Your task to perform on an android device: Search for the new Apple Watch on Best Buy Image 0: 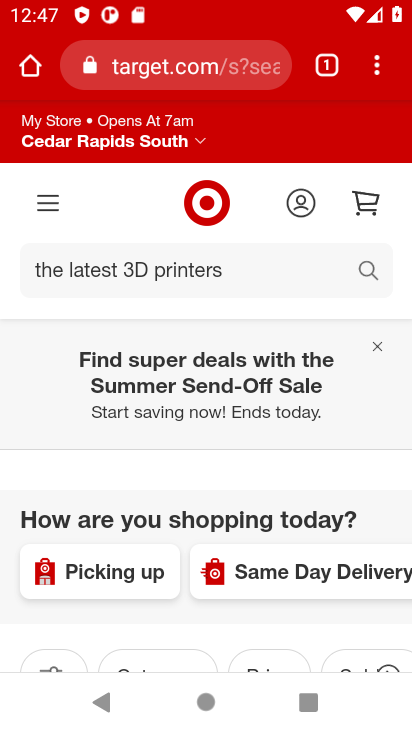
Step 0: press home button
Your task to perform on an android device: Search for the new Apple Watch on Best Buy Image 1: 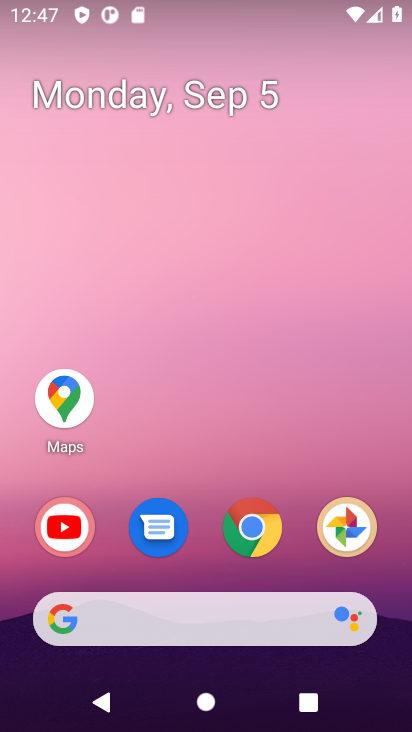
Step 1: click (244, 513)
Your task to perform on an android device: Search for the new Apple Watch on Best Buy Image 2: 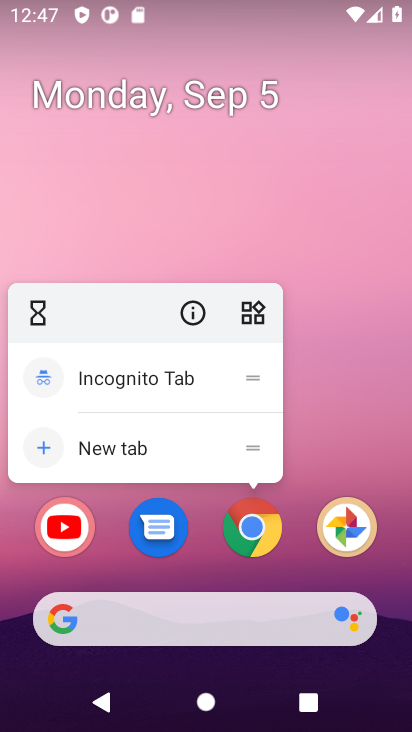
Step 2: click (248, 514)
Your task to perform on an android device: Search for the new Apple Watch on Best Buy Image 3: 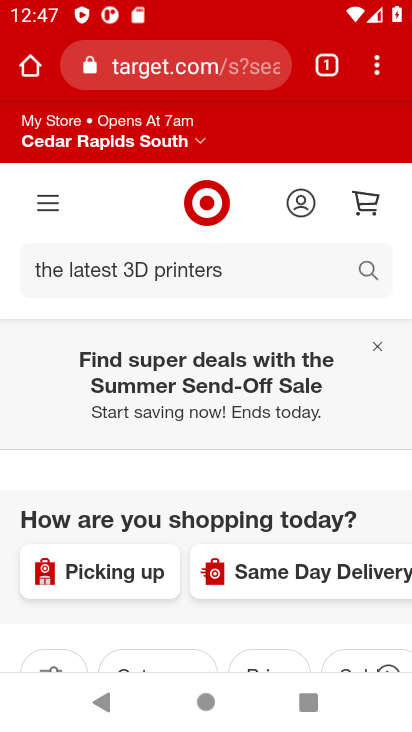
Step 3: click (161, 70)
Your task to perform on an android device: Search for the new Apple Watch on Best Buy Image 4: 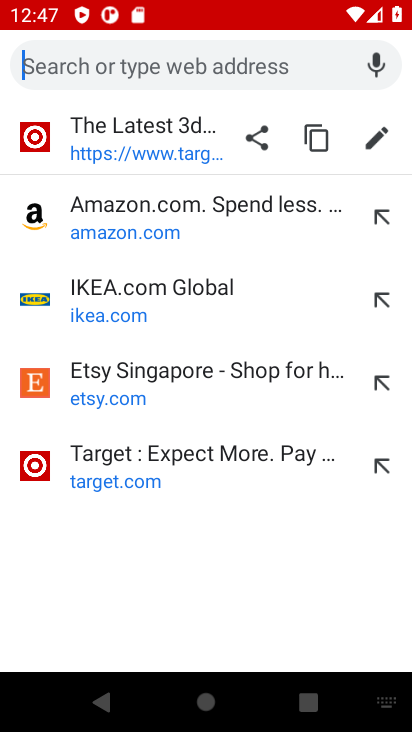
Step 4: type "Best buy"
Your task to perform on an android device: Search for the new Apple Watch on Best Buy Image 5: 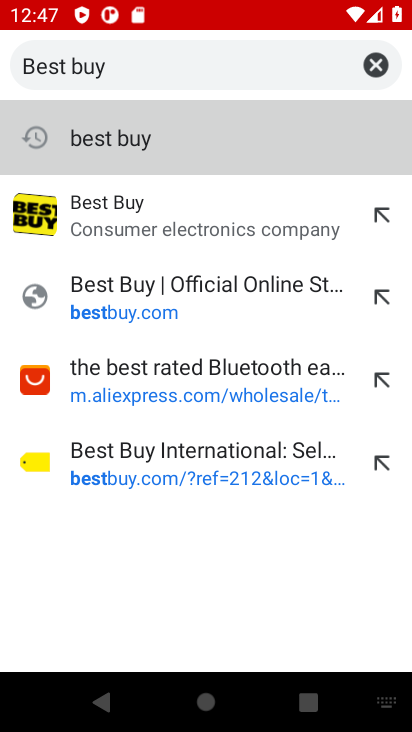
Step 5: click (148, 139)
Your task to perform on an android device: Search for the new Apple Watch on Best Buy Image 6: 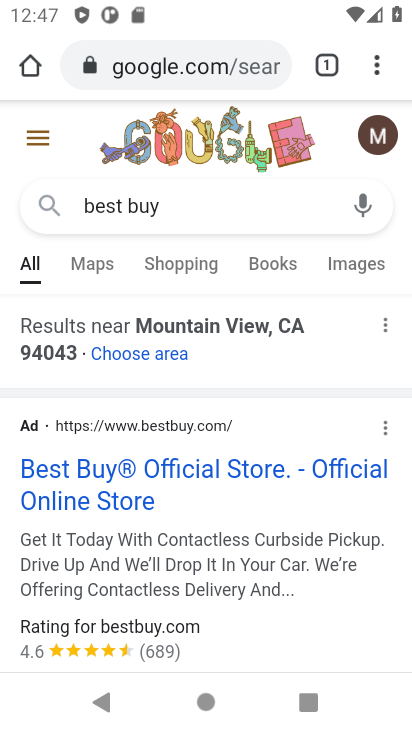
Step 6: click (149, 469)
Your task to perform on an android device: Search for the new Apple Watch on Best Buy Image 7: 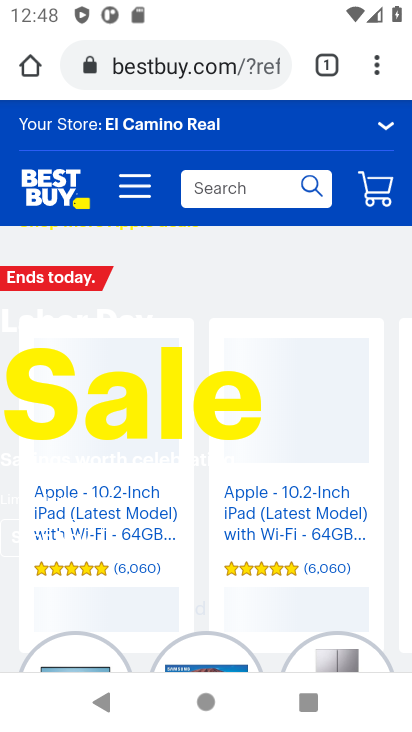
Step 7: click (207, 187)
Your task to perform on an android device: Search for the new Apple Watch on Best Buy Image 8: 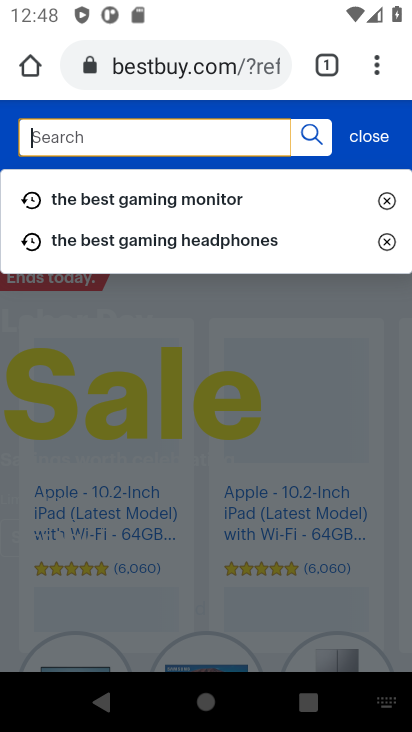
Step 8: type "the new Apple Watch"
Your task to perform on an android device: Search for the new Apple Watch on Best Buy Image 9: 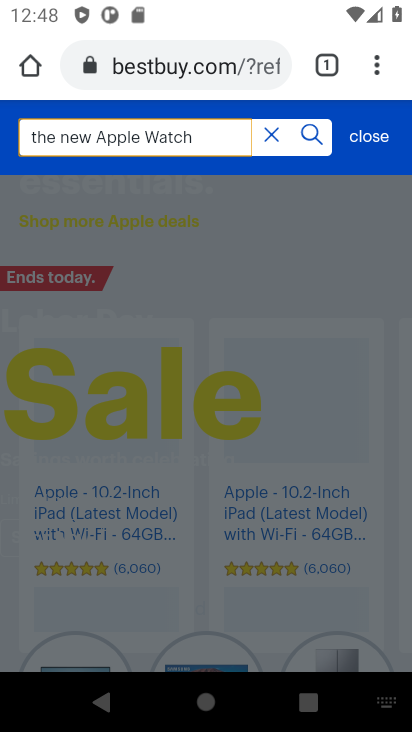
Step 9: click (318, 136)
Your task to perform on an android device: Search for the new Apple Watch on Best Buy Image 10: 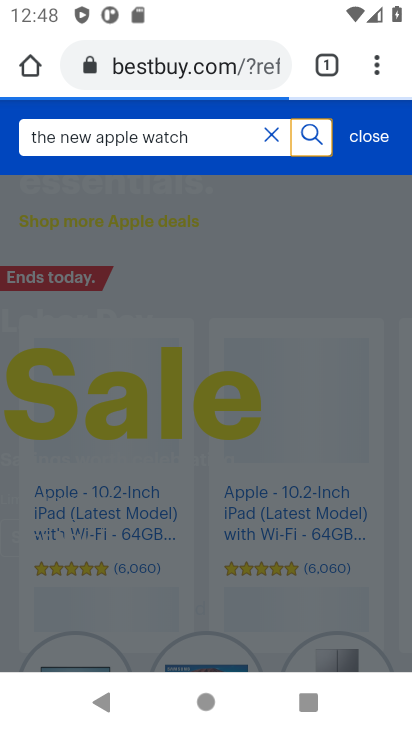
Step 10: click (308, 132)
Your task to perform on an android device: Search for the new Apple Watch on Best Buy Image 11: 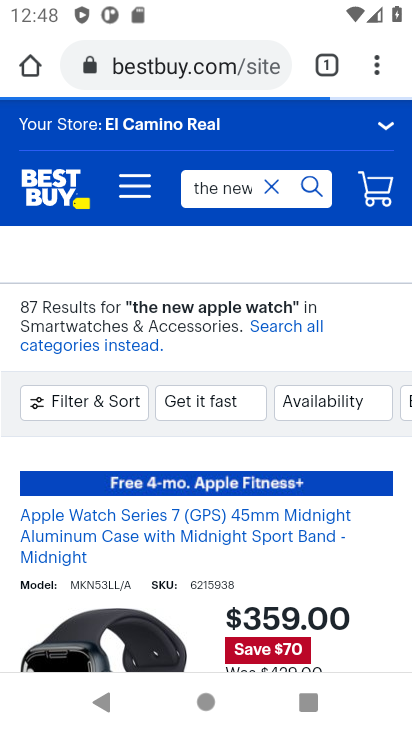
Step 11: click (318, 182)
Your task to perform on an android device: Search for the new Apple Watch on Best Buy Image 12: 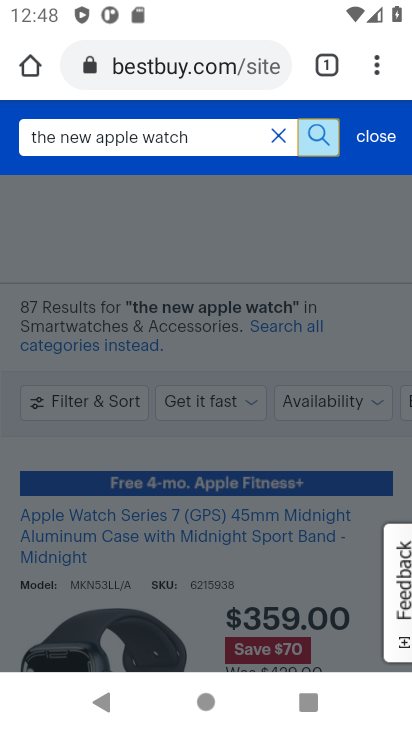
Step 12: click (310, 186)
Your task to perform on an android device: Search for the new Apple Watch on Best Buy Image 13: 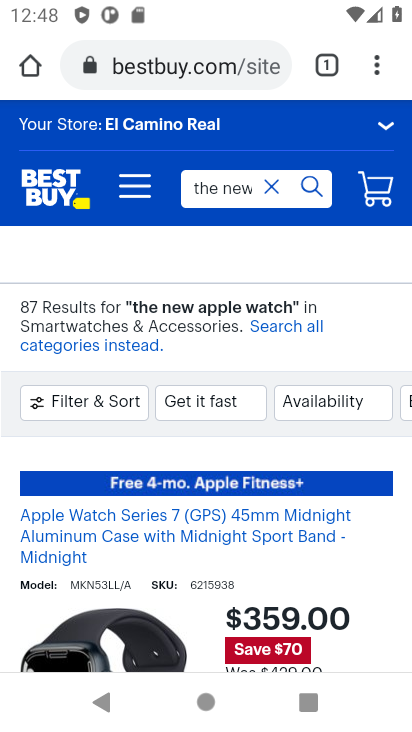
Step 13: task complete